Your task to perform on an android device: choose inbox layout in the gmail app Image 0: 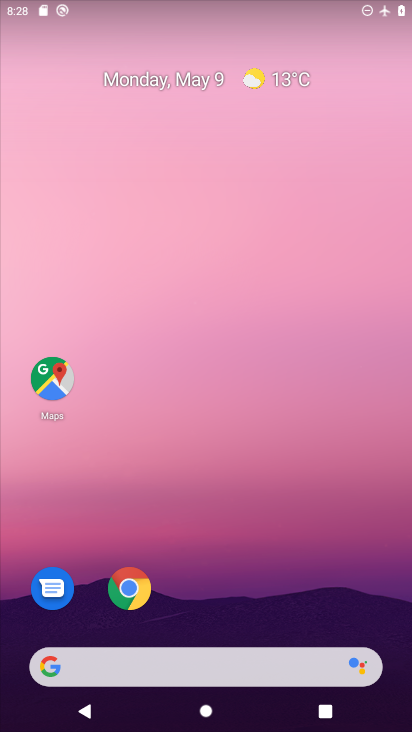
Step 0: drag from (347, 617) to (146, 112)
Your task to perform on an android device: choose inbox layout in the gmail app Image 1: 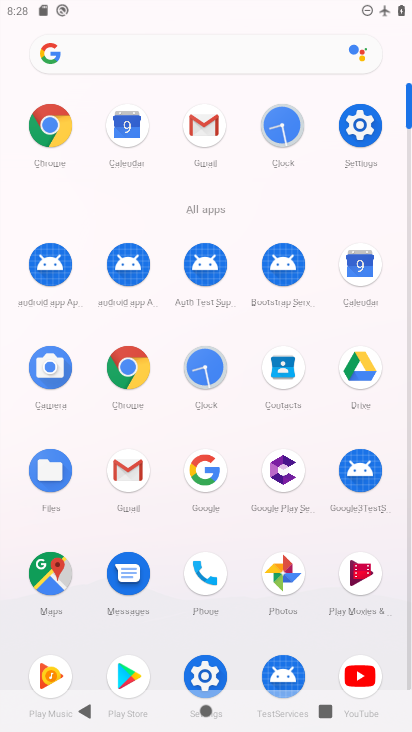
Step 1: click (137, 479)
Your task to perform on an android device: choose inbox layout in the gmail app Image 2: 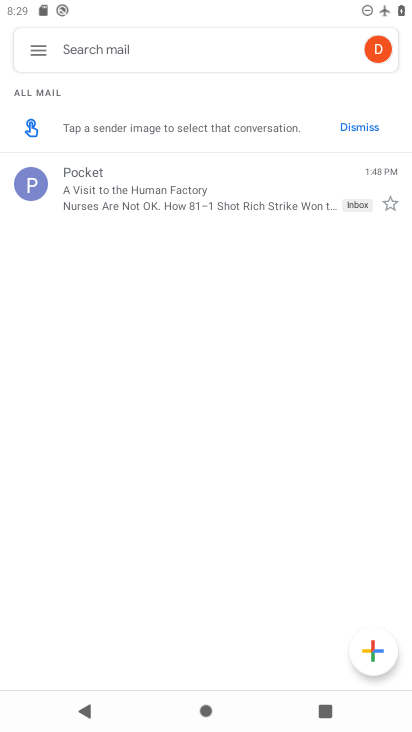
Step 2: click (40, 50)
Your task to perform on an android device: choose inbox layout in the gmail app Image 3: 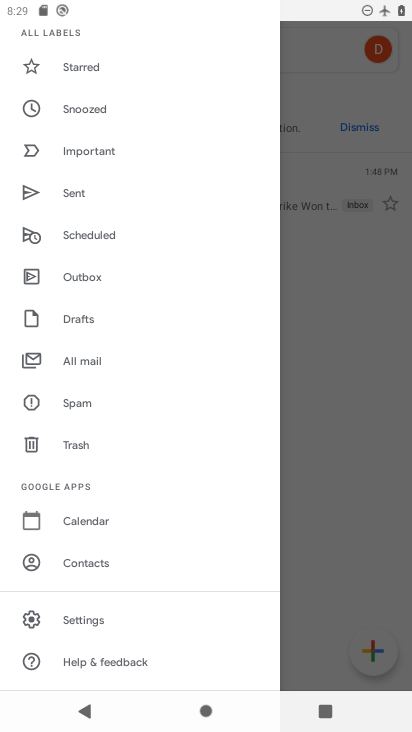
Step 3: drag from (125, 160) to (196, 423)
Your task to perform on an android device: choose inbox layout in the gmail app Image 4: 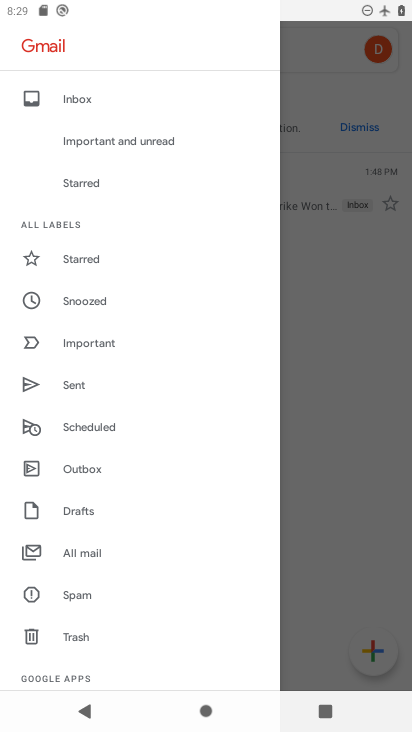
Step 4: click (150, 113)
Your task to perform on an android device: choose inbox layout in the gmail app Image 5: 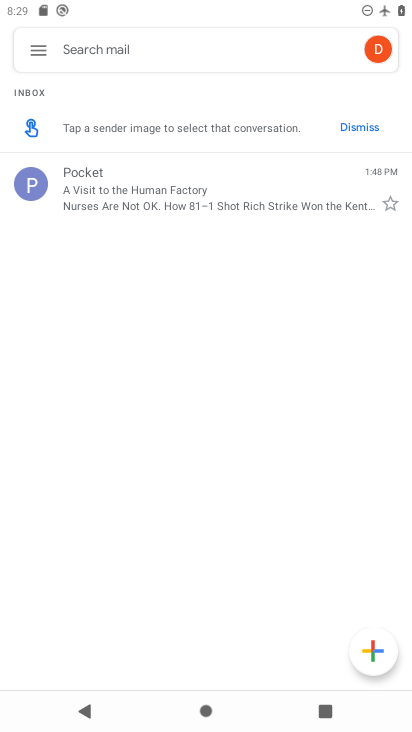
Step 5: task complete